Your task to perform on an android device: What is the news today? Image 0: 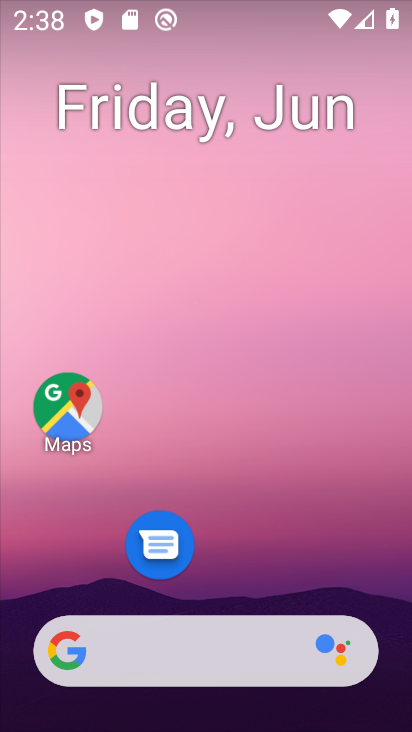
Step 0: click (235, 654)
Your task to perform on an android device: What is the news today? Image 1: 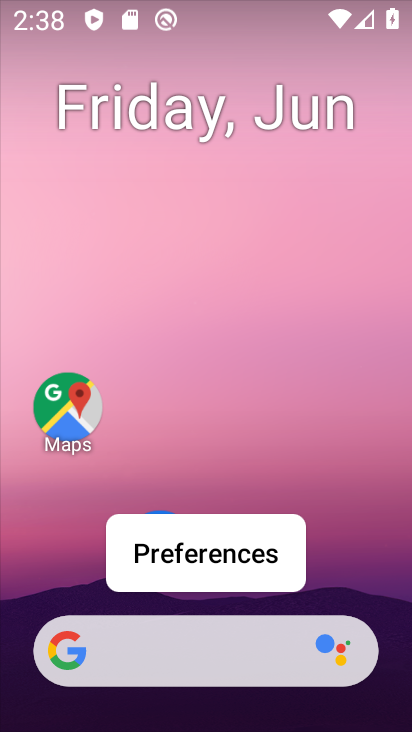
Step 1: click (204, 651)
Your task to perform on an android device: What is the news today? Image 2: 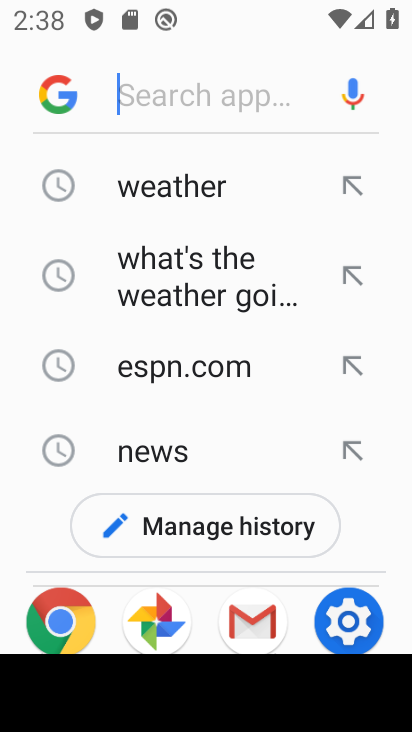
Step 2: click (206, 648)
Your task to perform on an android device: What is the news today? Image 3: 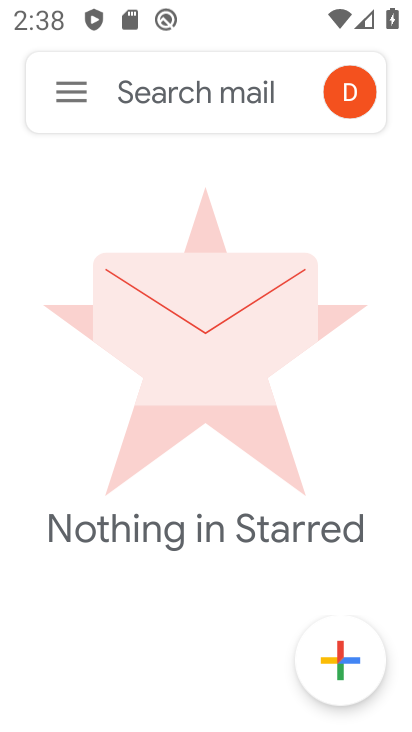
Step 3: click (187, 85)
Your task to perform on an android device: What is the news today? Image 4: 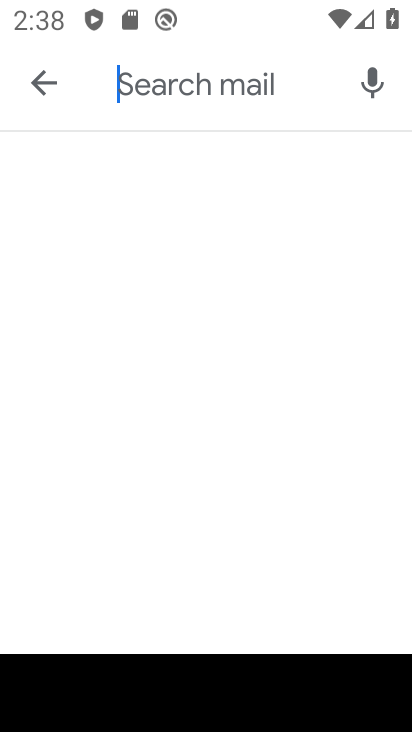
Step 4: press home button
Your task to perform on an android device: What is the news today? Image 5: 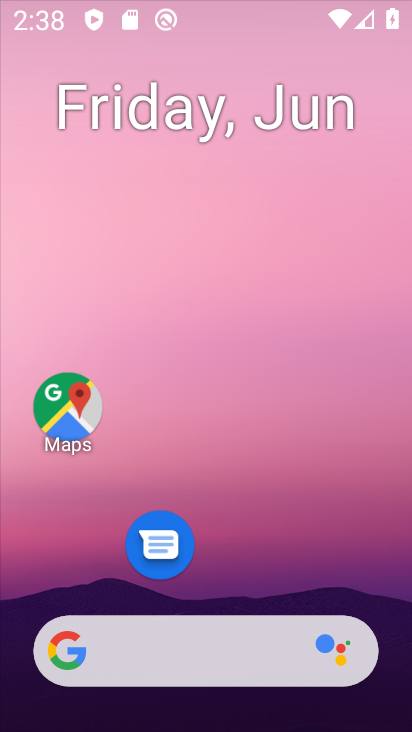
Step 5: click (203, 652)
Your task to perform on an android device: What is the news today? Image 6: 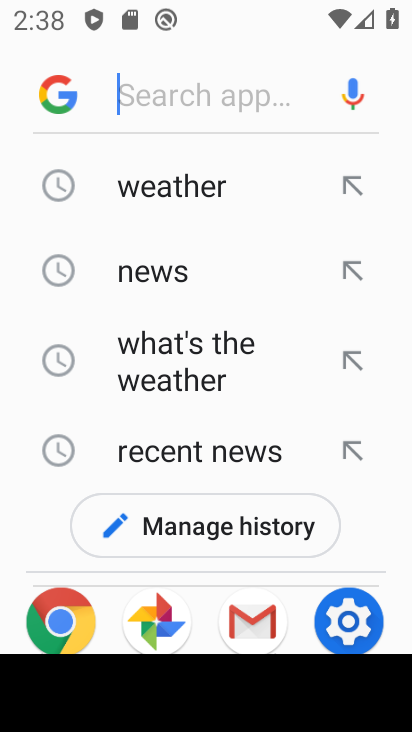
Step 6: type "news today ?"
Your task to perform on an android device: What is the news today? Image 7: 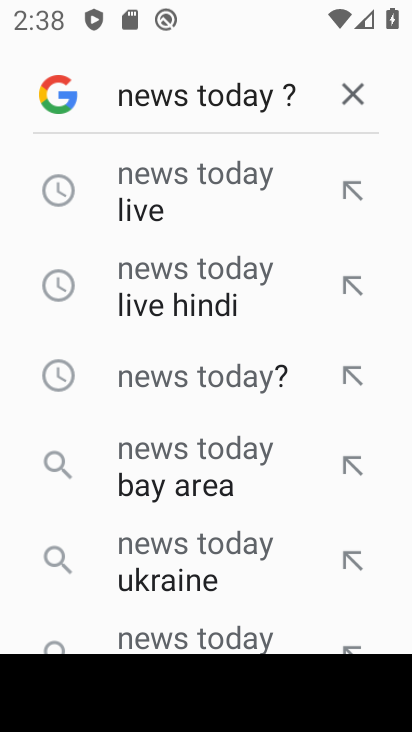
Step 7: click (233, 381)
Your task to perform on an android device: What is the news today? Image 8: 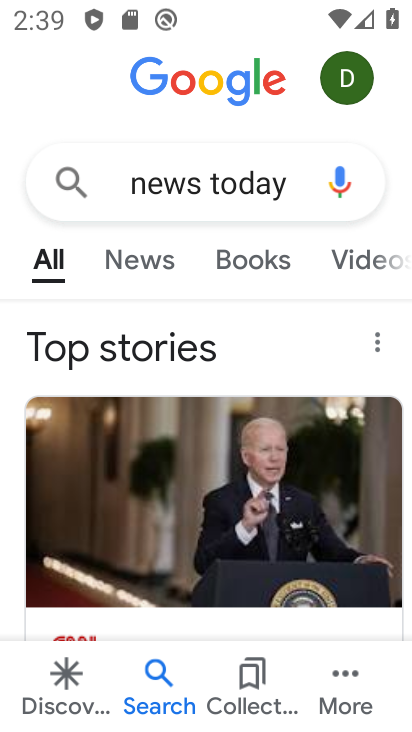
Step 8: task complete